Your task to perform on an android device: check data usage Image 0: 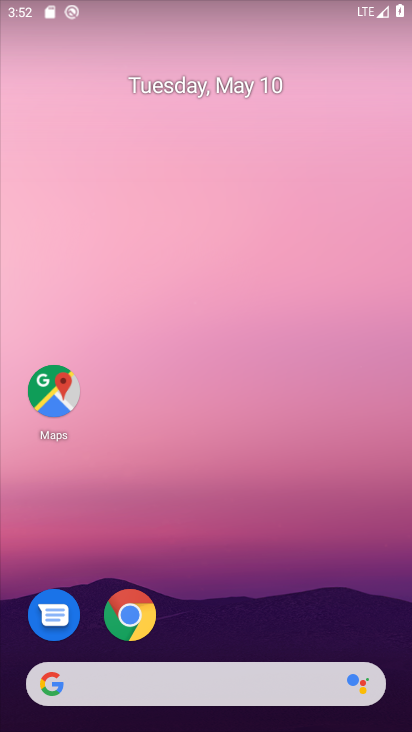
Step 0: drag from (297, 668) to (277, 73)
Your task to perform on an android device: check data usage Image 1: 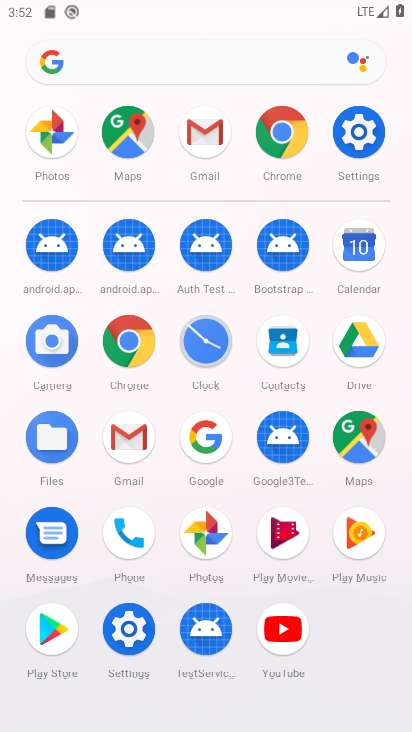
Step 1: click (353, 140)
Your task to perform on an android device: check data usage Image 2: 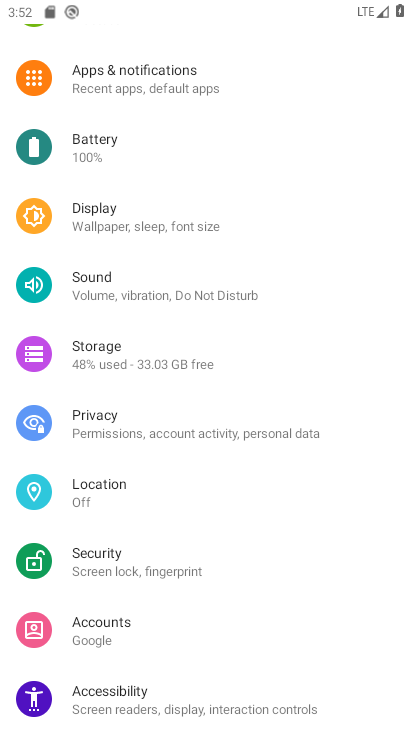
Step 2: drag from (344, 721) to (292, 723)
Your task to perform on an android device: check data usage Image 3: 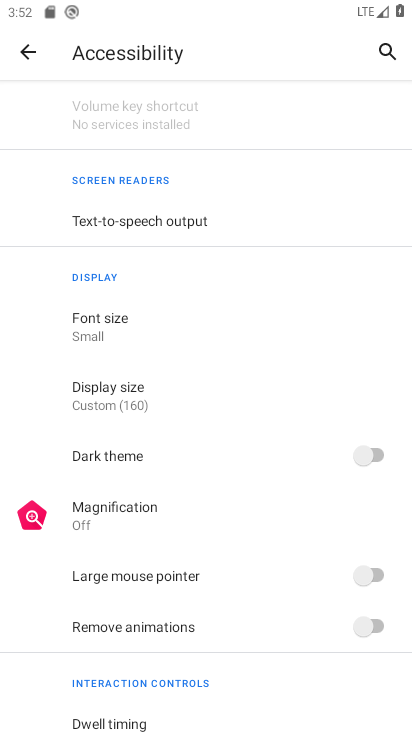
Step 3: press back button
Your task to perform on an android device: check data usage Image 4: 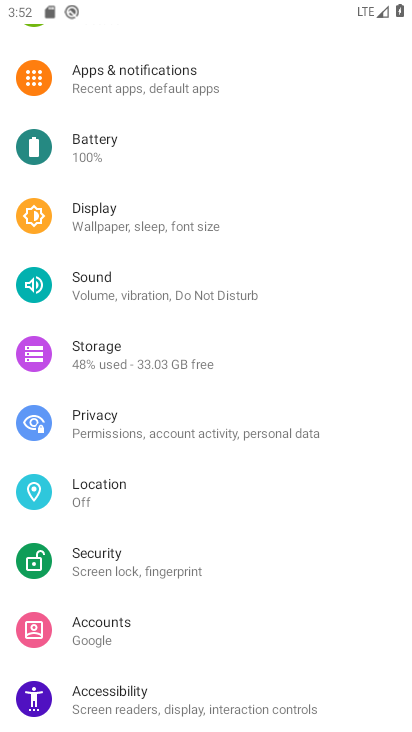
Step 4: drag from (218, 145) to (250, 693)
Your task to perform on an android device: check data usage Image 5: 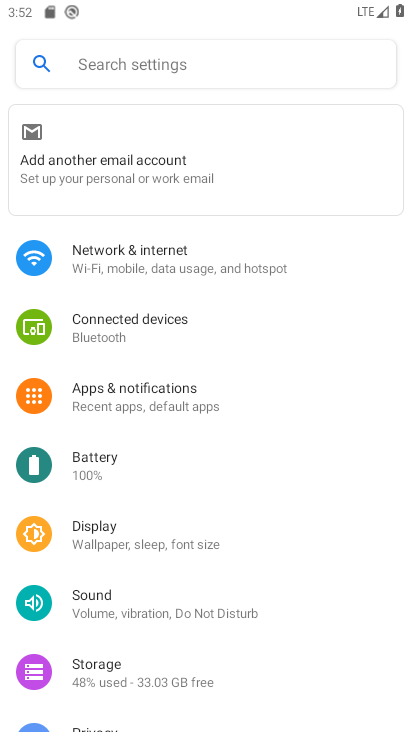
Step 5: click (206, 272)
Your task to perform on an android device: check data usage Image 6: 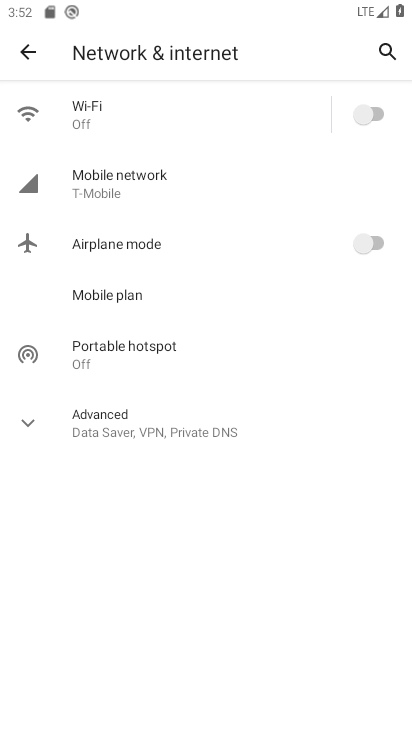
Step 6: click (151, 192)
Your task to perform on an android device: check data usage Image 7: 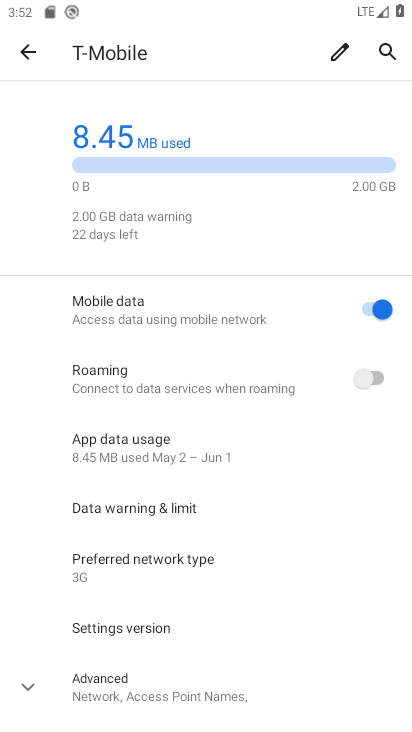
Step 7: click (180, 444)
Your task to perform on an android device: check data usage Image 8: 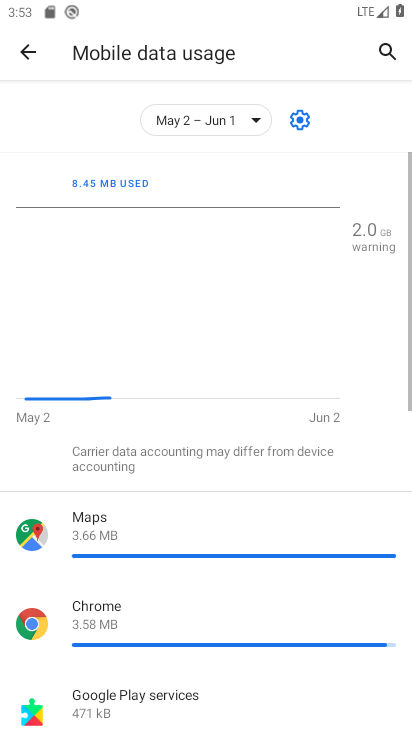
Step 8: task complete